Your task to perform on an android device: turn on airplane mode Image 0: 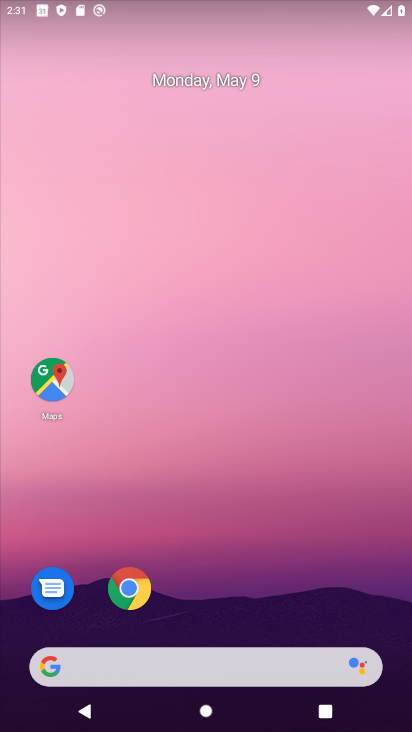
Step 0: drag from (241, 5) to (280, 637)
Your task to perform on an android device: turn on airplane mode Image 1: 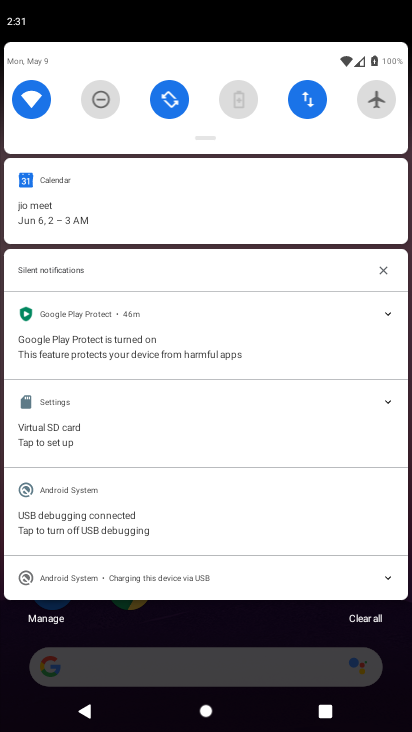
Step 1: click (375, 98)
Your task to perform on an android device: turn on airplane mode Image 2: 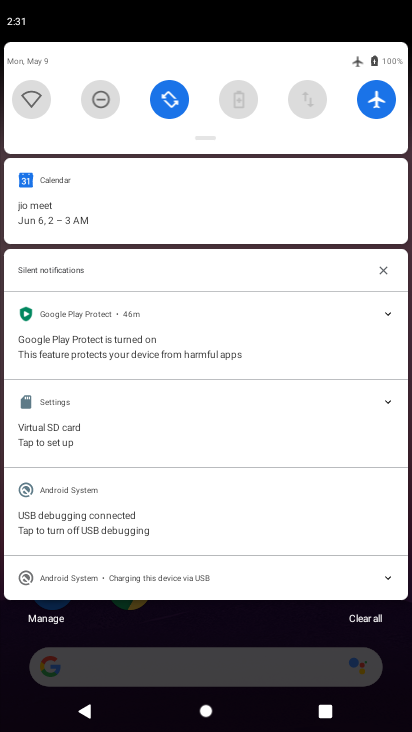
Step 2: task complete